Your task to perform on an android device: Open Google Maps and go to "Timeline" Image 0: 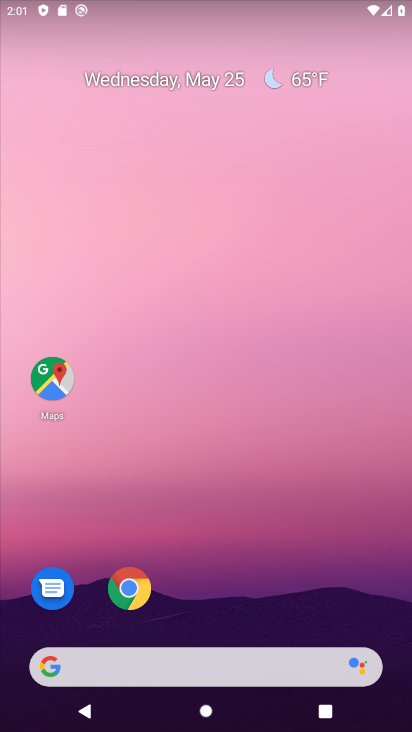
Step 0: press home button
Your task to perform on an android device: Open Google Maps and go to "Timeline" Image 1: 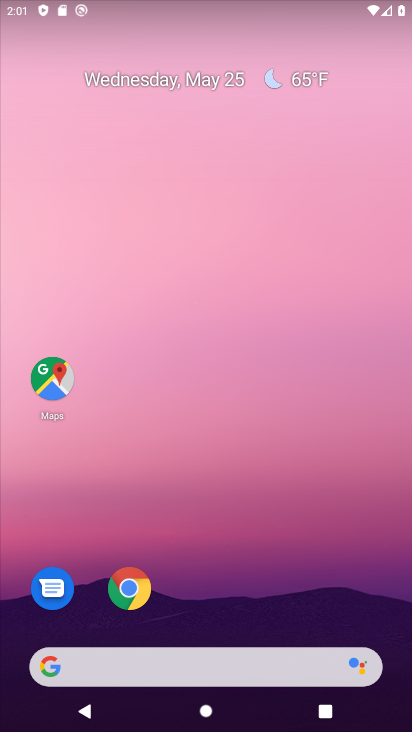
Step 1: click (48, 376)
Your task to perform on an android device: Open Google Maps and go to "Timeline" Image 2: 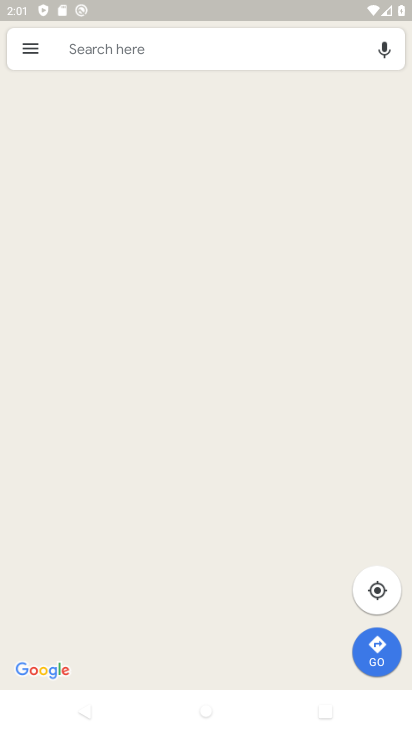
Step 2: click (29, 48)
Your task to perform on an android device: Open Google Maps and go to "Timeline" Image 3: 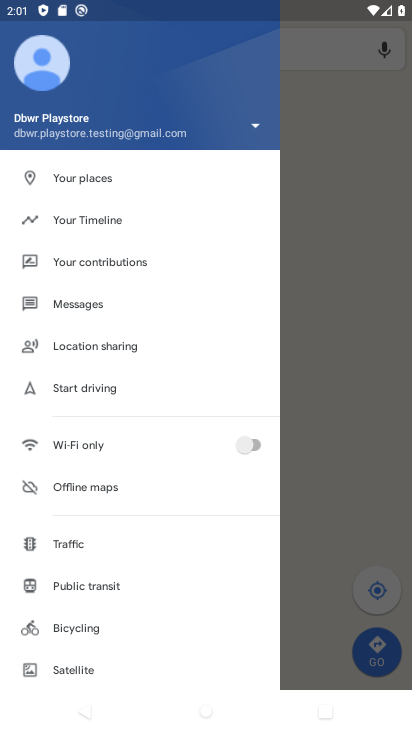
Step 3: click (98, 228)
Your task to perform on an android device: Open Google Maps and go to "Timeline" Image 4: 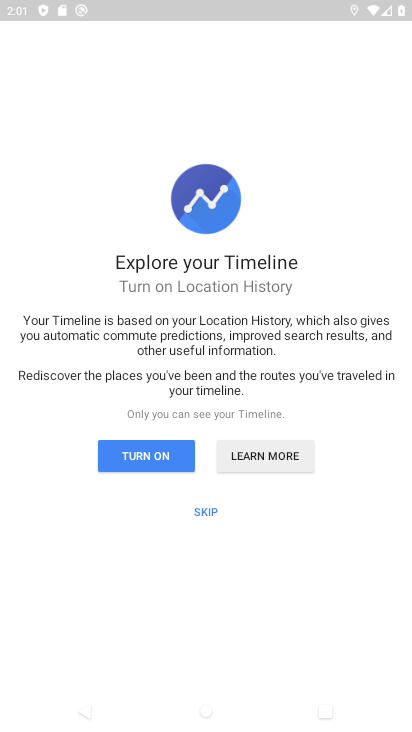
Step 4: task complete